Your task to perform on an android device: Go to Google maps Image 0: 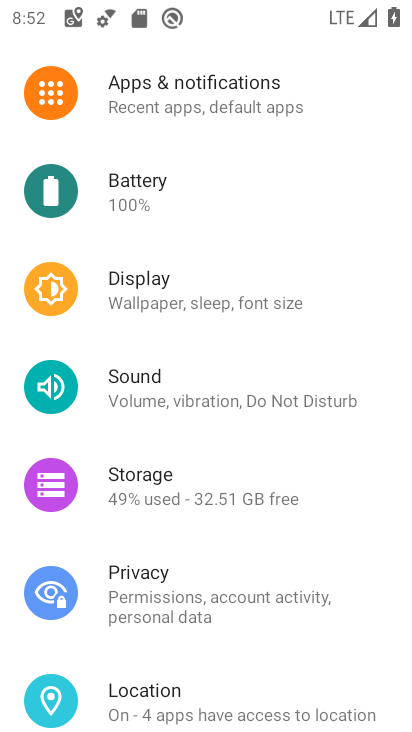
Step 0: press home button
Your task to perform on an android device: Go to Google maps Image 1: 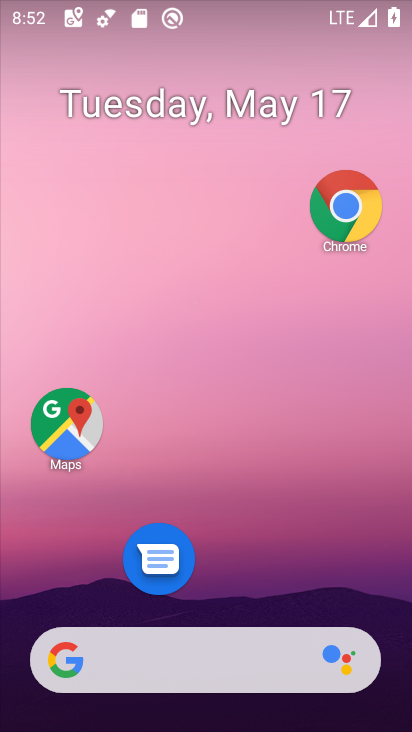
Step 1: click (96, 439)
Your task to perform on an android device: Go to Google maps Image 2: 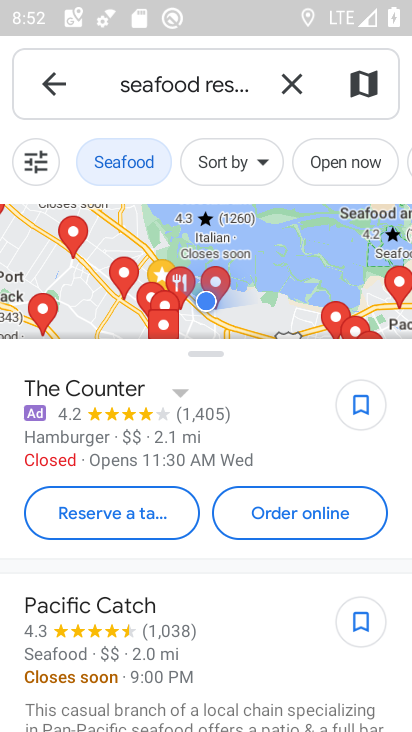
Step 2: task complete